Your task to perform on an android device: turn on javascript in the chrome app Image 0: 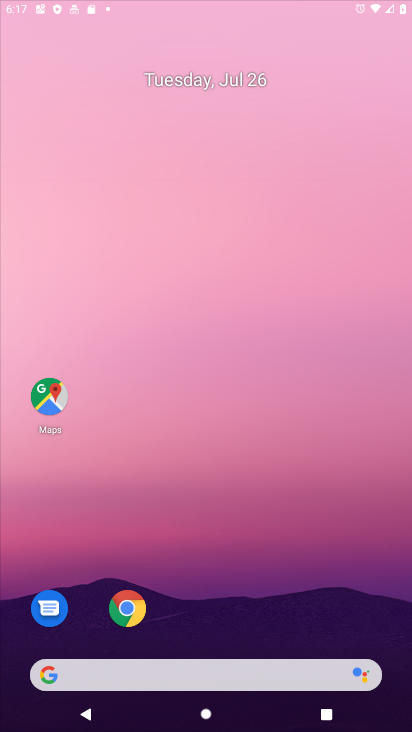
Step 0: press home button
Your task to perform on an android device: turn on javascript in the chrome app Image 1: 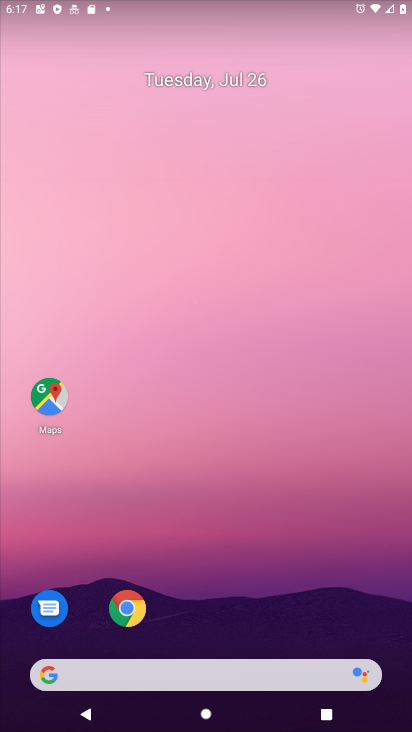
Step 1: drag from (233, 635) to (252, 180)
Your task to perform on an android device: turn on javascript in the chrome app Image 2: 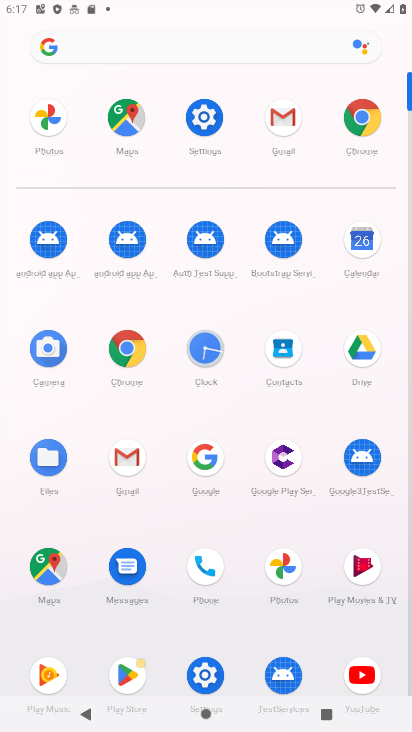
Step 2: click (350, 122)
Your task to perform on an android device: turn on javascript in the chrome app Image 3: 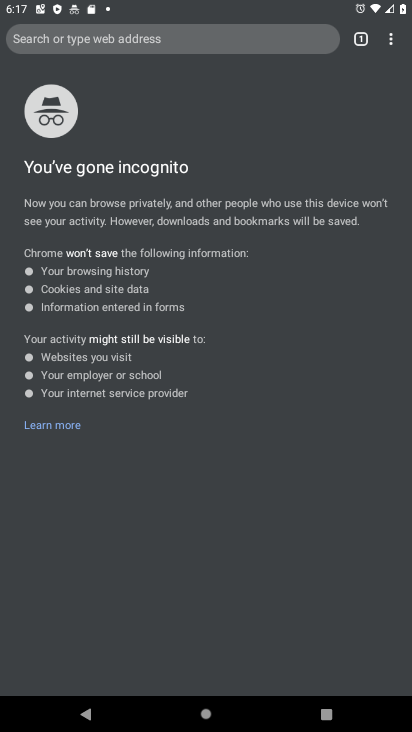
Step 3: drag from (390, 47) to (272, 290)
Your task to perform on an android device: turn on javascript in the chrome app Image 4: 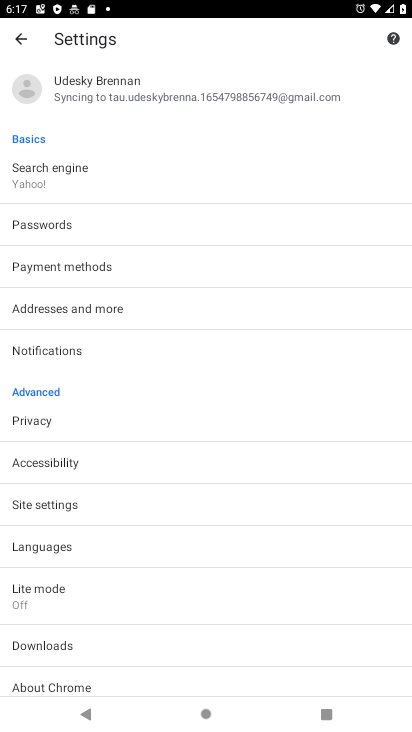
Step 4: click (39, 504)
Your task to perform on an android device: turn on javascript in the chrome app Image 5: 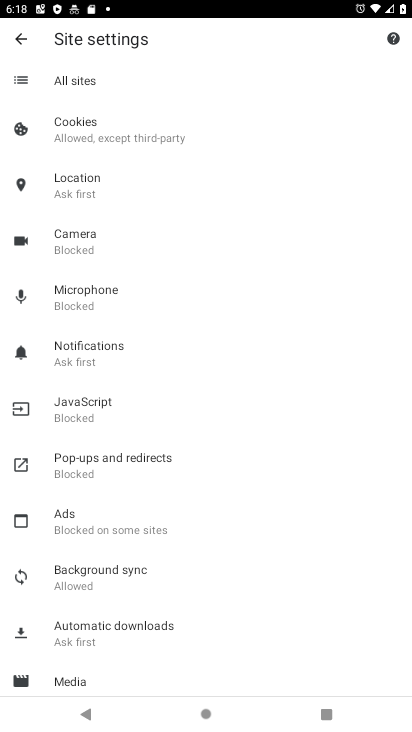
Step 5: click (102, 412)
Your task to perform on an android device: turn on javascript in the chrome app Image 6: 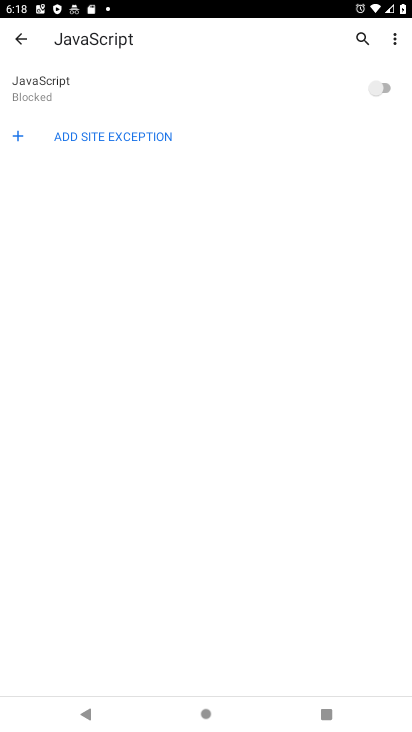
Step 6: click (380, 88)
Your task to perform on an android device: turn on javascript in the chrome app Image 7: 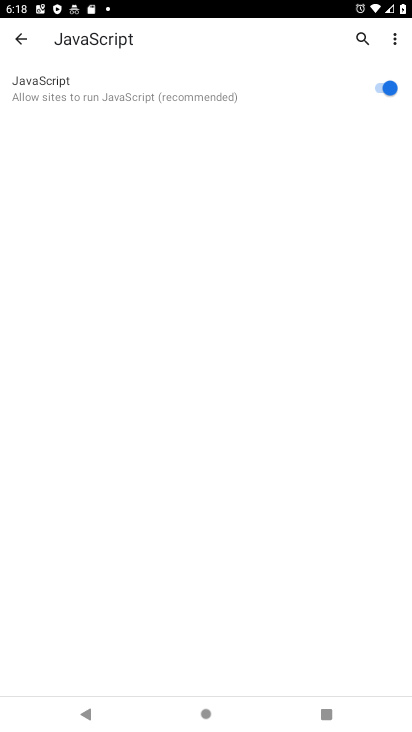
Step 7: task complete